Your task to perform on an android device: clear all cookies in the chrome app Image 0: 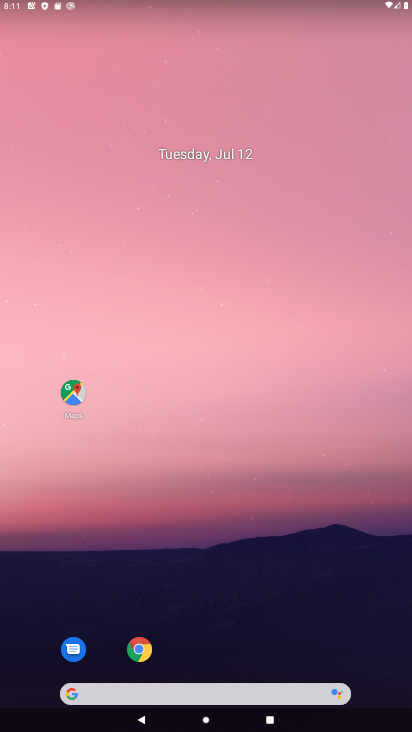
Step 0: click (138, 652)
Your task to perform on an android device: clear all cookies in the chrome app Image 1: 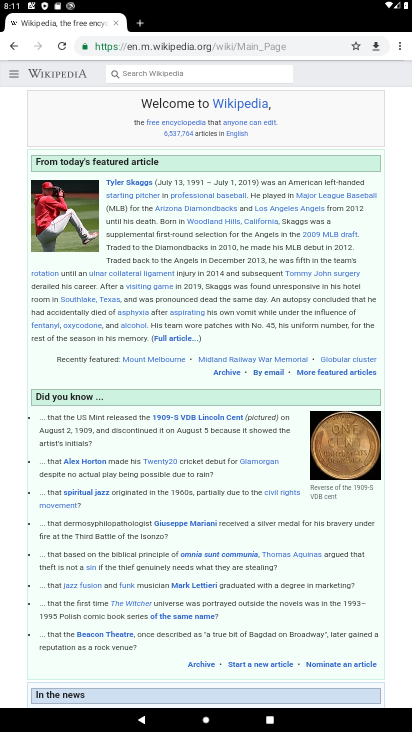
Step 1: click (396, 48)
Your task to perform on an android device: clear all cookies in the chrome app Image 2: 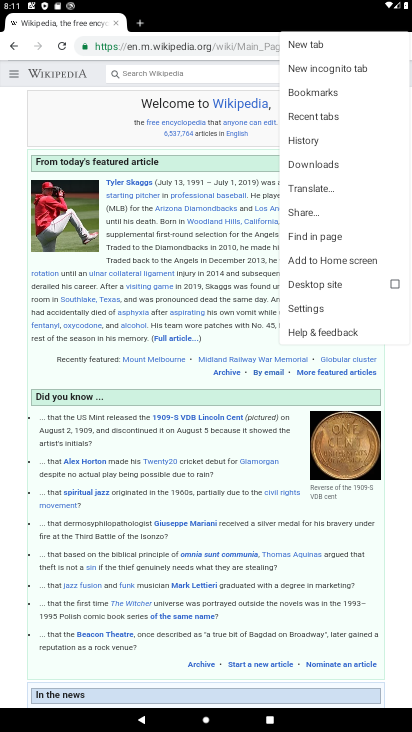
Step 2: click (323, 305)
Your task to perform on an android device: clear all cookies in the chrome app Image 3: 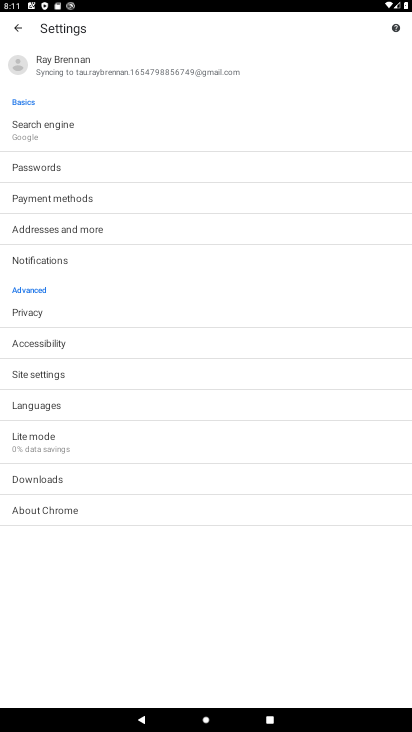
Step 3: click (54, 313)
Your task to perform on an android device: clear all cookies in the chrome app Image 4: 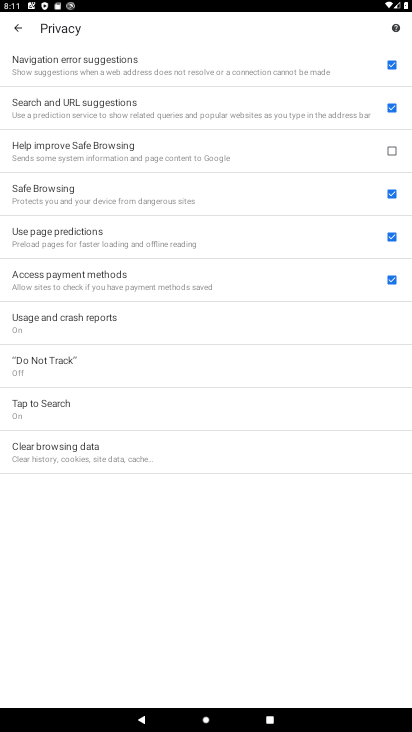
Step 4: click (62, 445)
Your task to perform on an android device: clear all cookies in the chrome app Image 5: 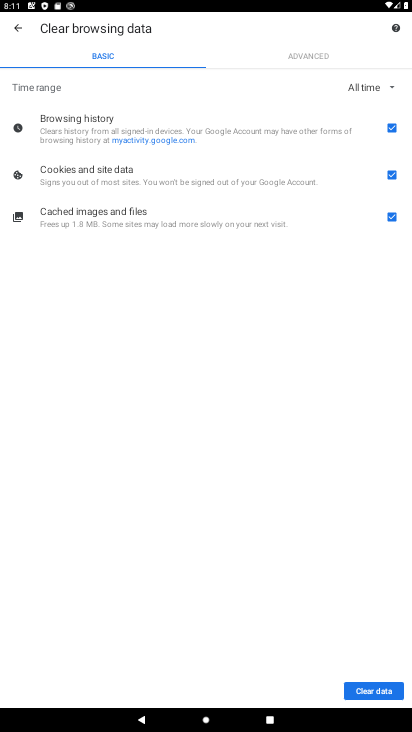
Step 5: click (388, 130)
Your task to perform on an android device: clear all cookies in the chrome app Image 6: 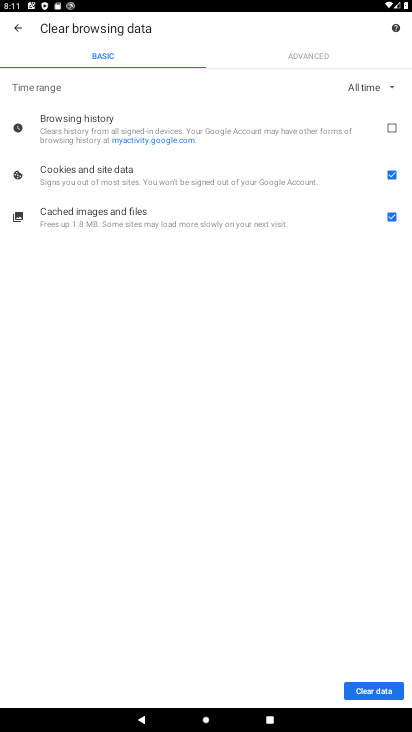
Step 6: click (391, 176)
Your task to perform on an android device: clear all cookies in the chrome app Image 7: 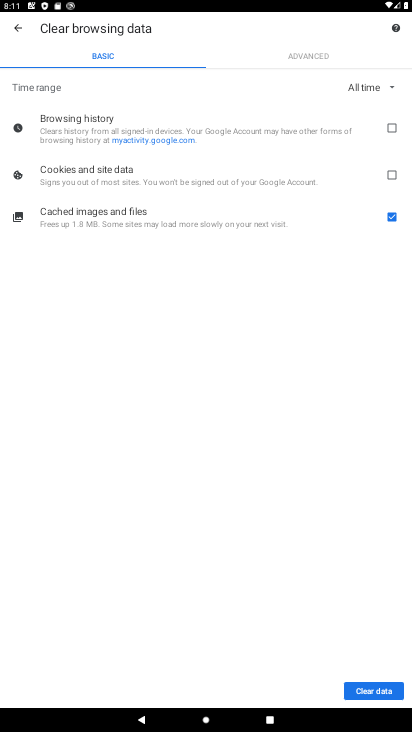
Step 7: click (394, 213)
Your task to perform on an android device: clear all cookies in the chrome app Image 8: 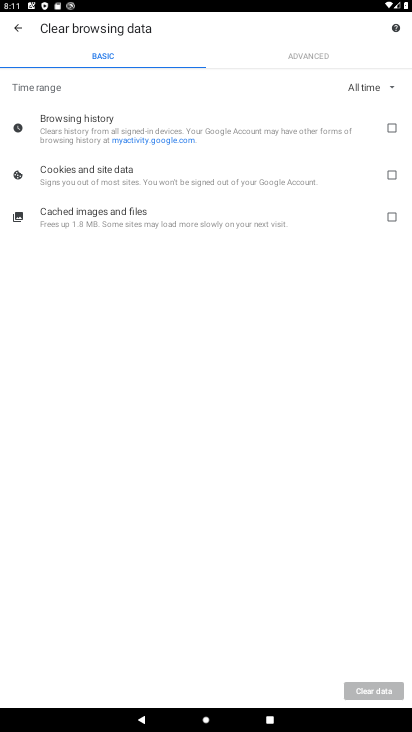
Step 8: click (391, 173)
Your task to perform on an android device: clear all cookies in the chrome app Image 9: 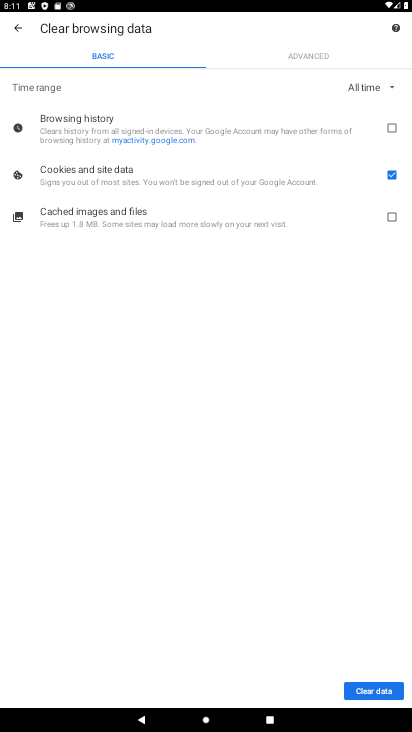
Step 9: click (362, 688)
Your task to perform on an android device: clear all cookies in the chrome app Image 10: 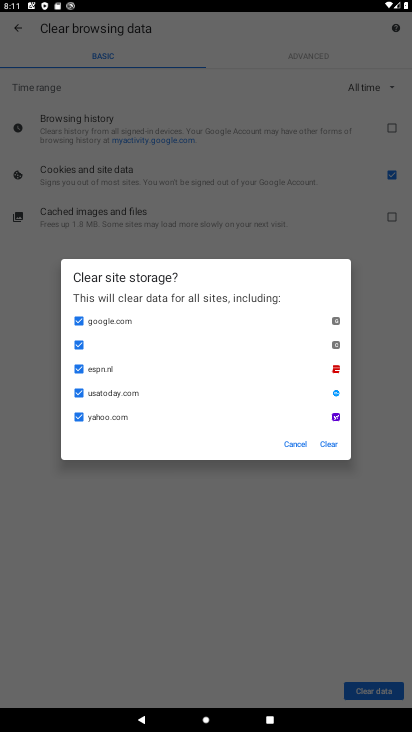
Step 10: click (330, 447)
Your task to perform on an android device: clear all cookies in the chrome app Image 11: 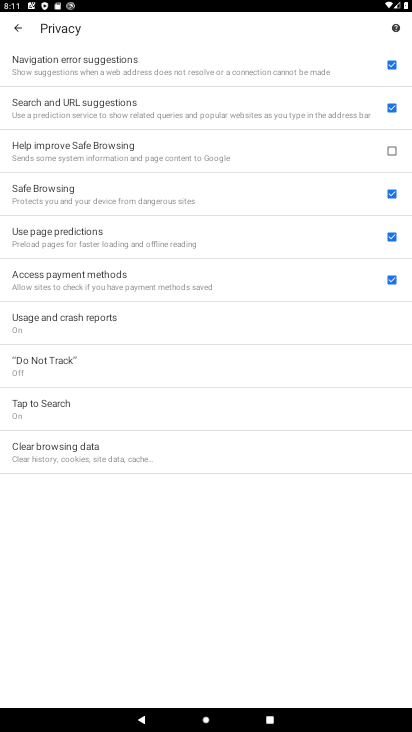
Step 11: task complete